Your task to perform on an android device: install app "Speedtest by Ookla" Image 0: 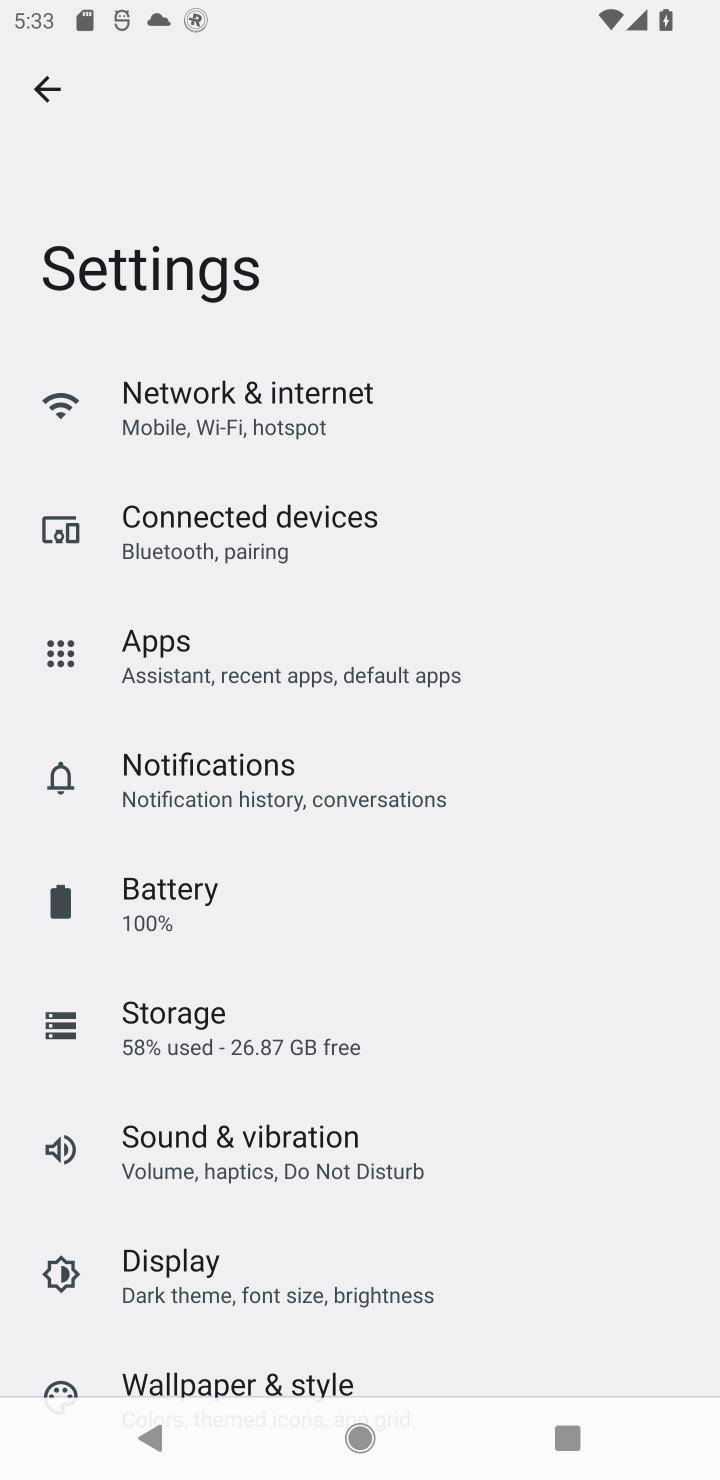
Step 0: press home button
Your task to perform on an android device: install app "Speedtest by Ookla" Image 1: 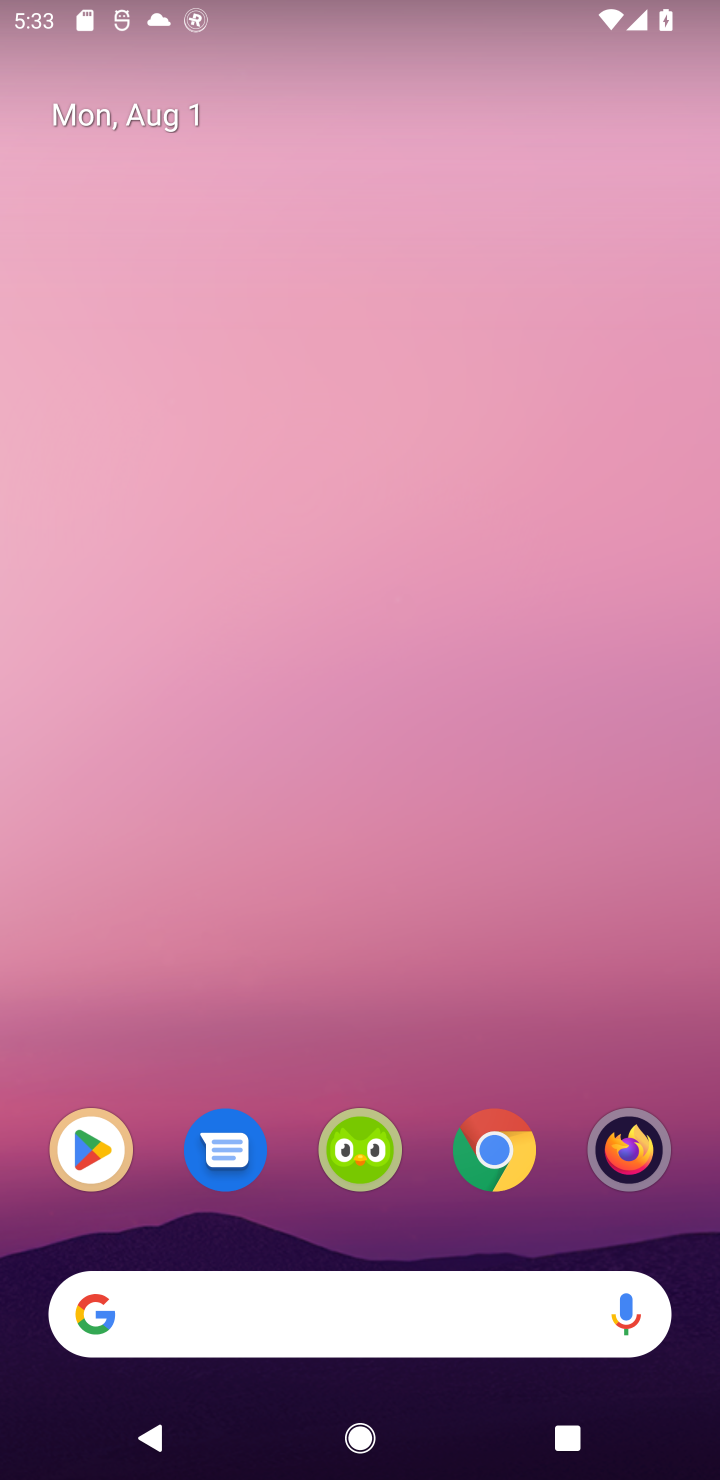
Step 1: click (439, 468)
Your task to perform on an android device: install app "Speedtest by Ookla" Image 2: 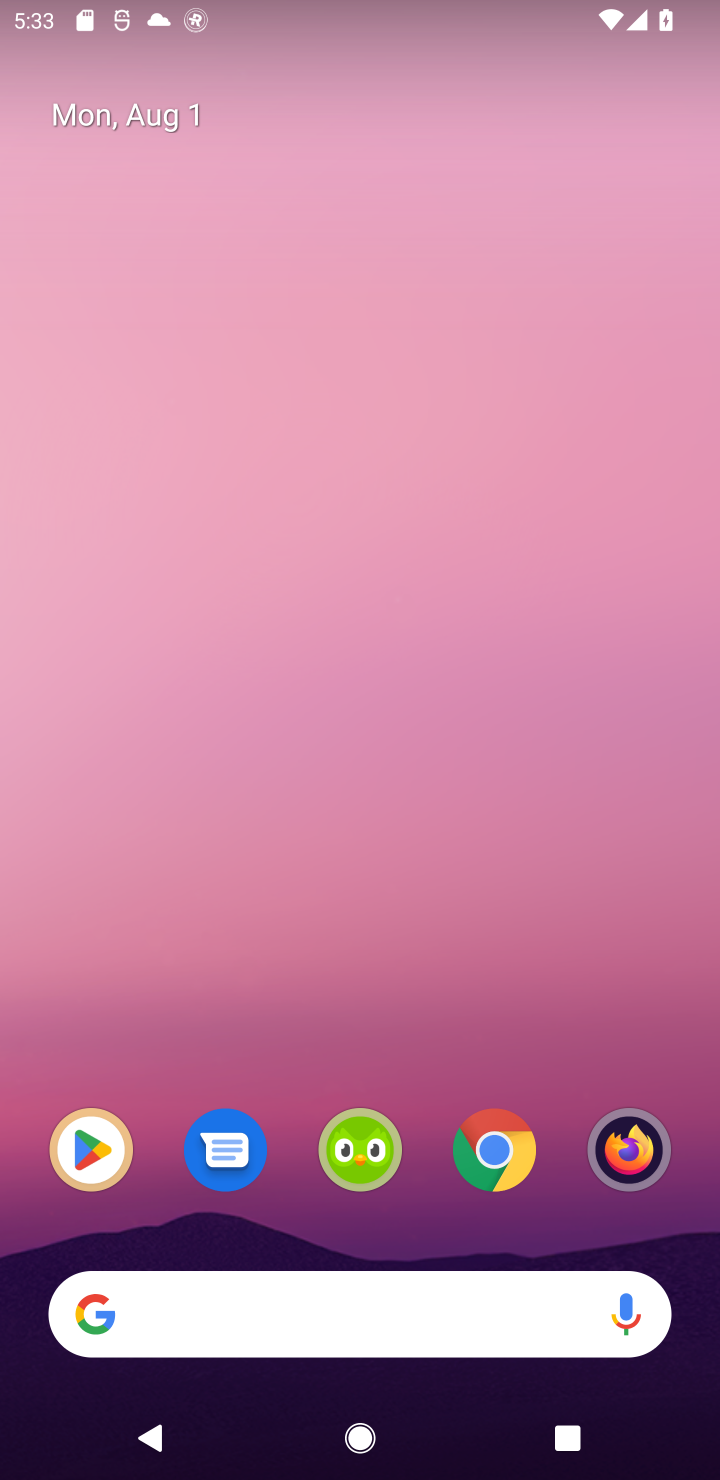
Step 2: click (103, 1171)
Your task to perform on an android device: install app "Speedtest by Ookla" Image 3: 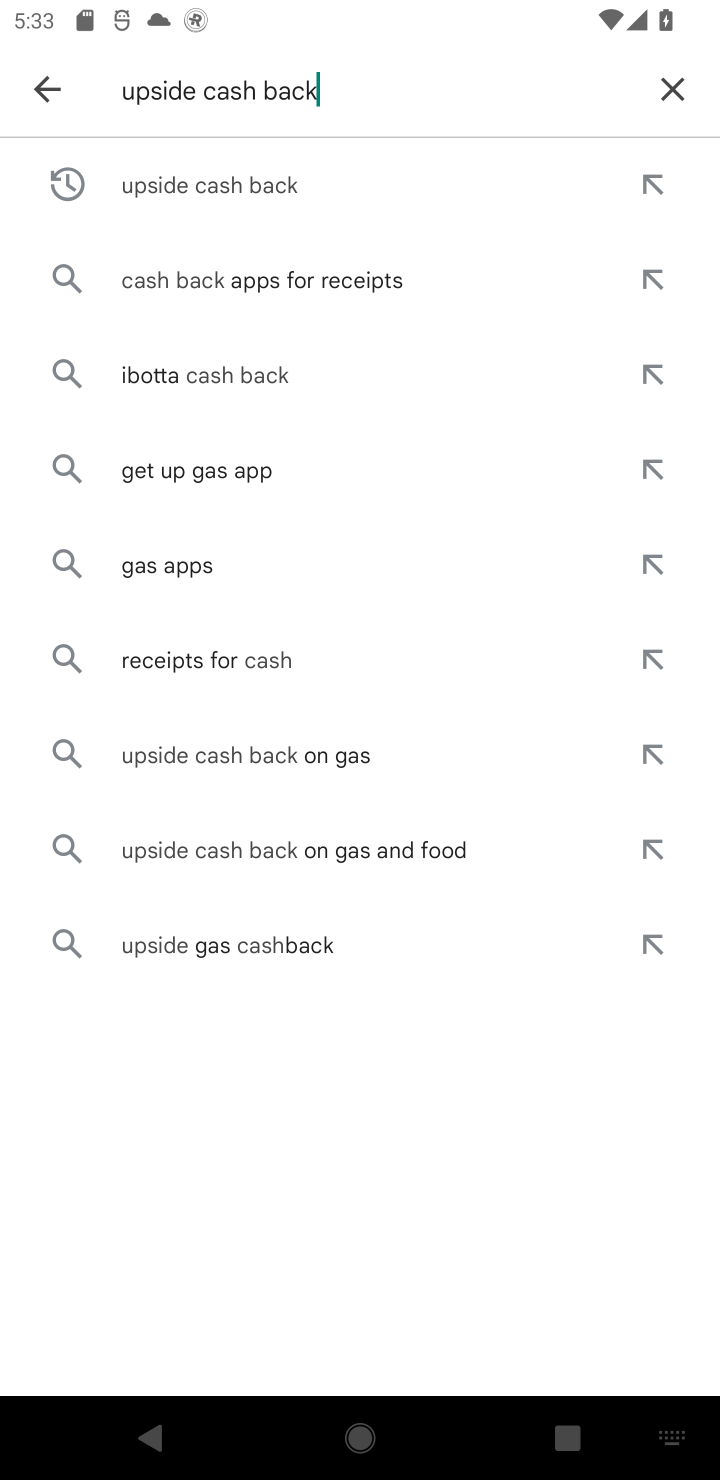
Step 3: click (675, 94)
Your task to perform on an android device: install app "Speedtest by Ookla" Image 4: 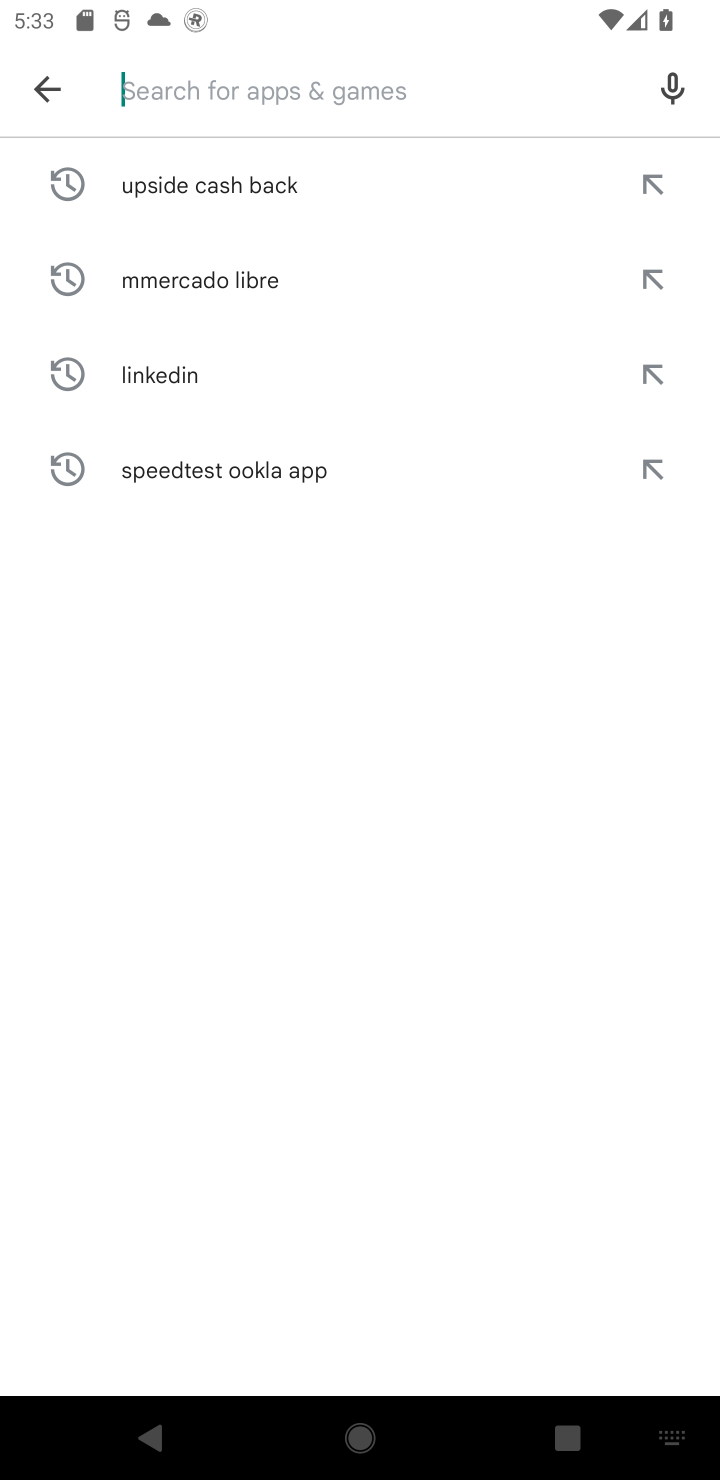
Step 4: type "speedtest"
Your task to perform on an android device: install app "Speedtest by Ookla" Image 5: 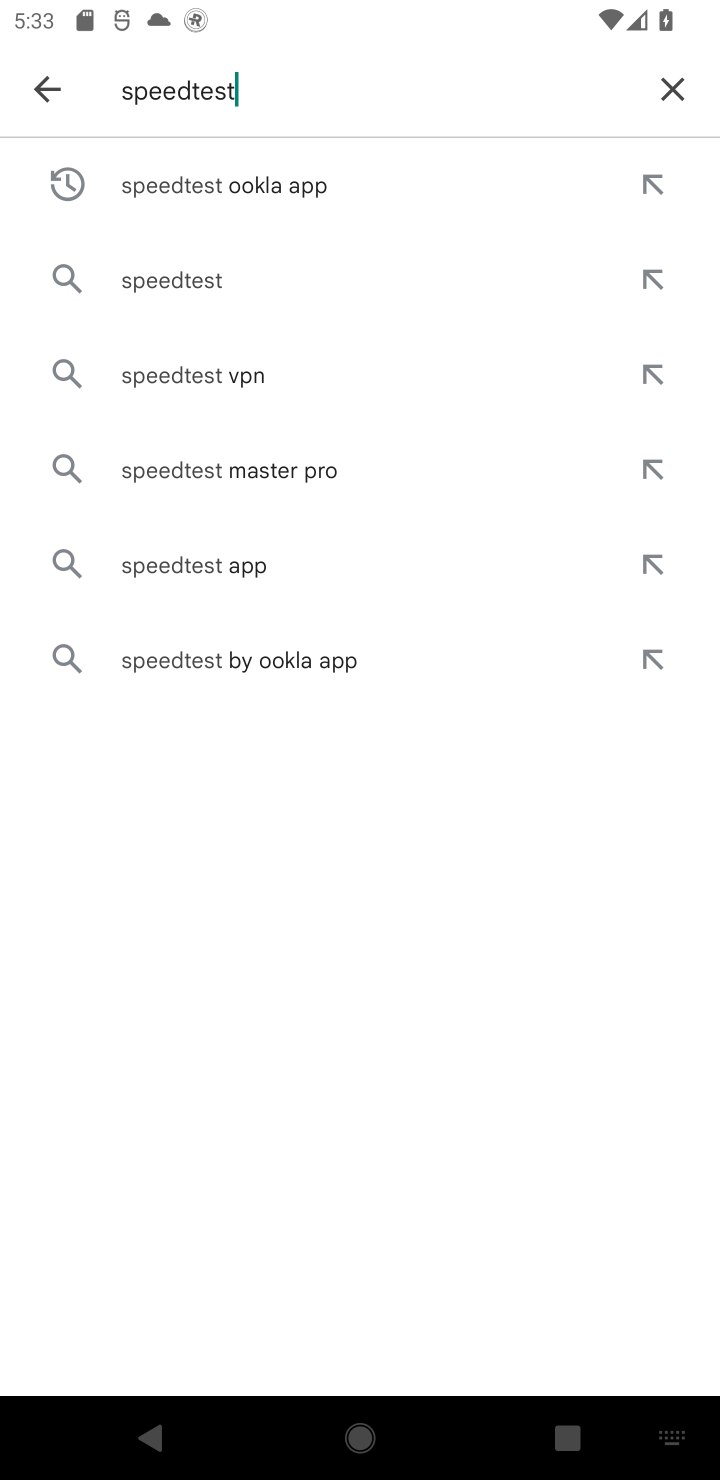
Step 5: click (251, 173)
Your task to perform on an android device: install app "Speedtest by Ookla" Image 6: 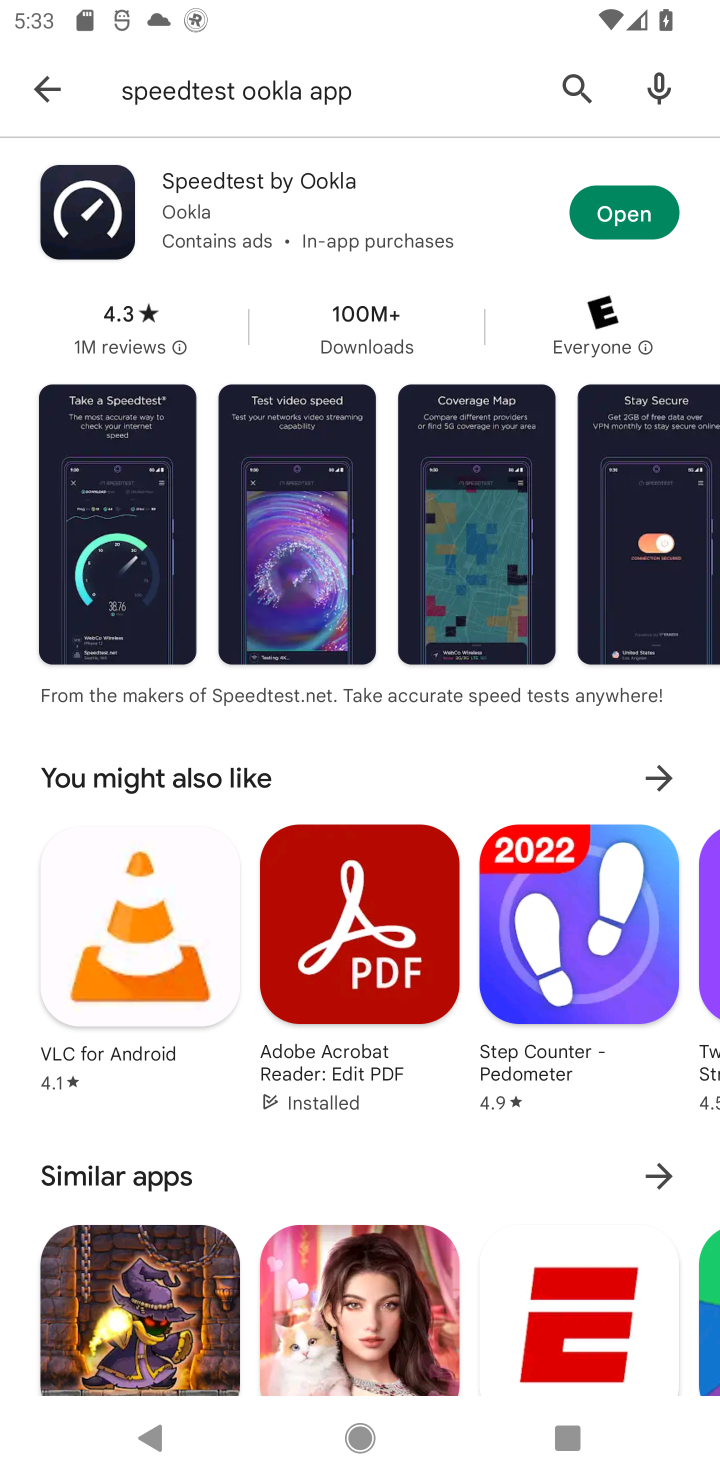
Step 6: click (598, 205)
Your task to perform on an android device: install app "Speedtest by Ookla" Image 7: 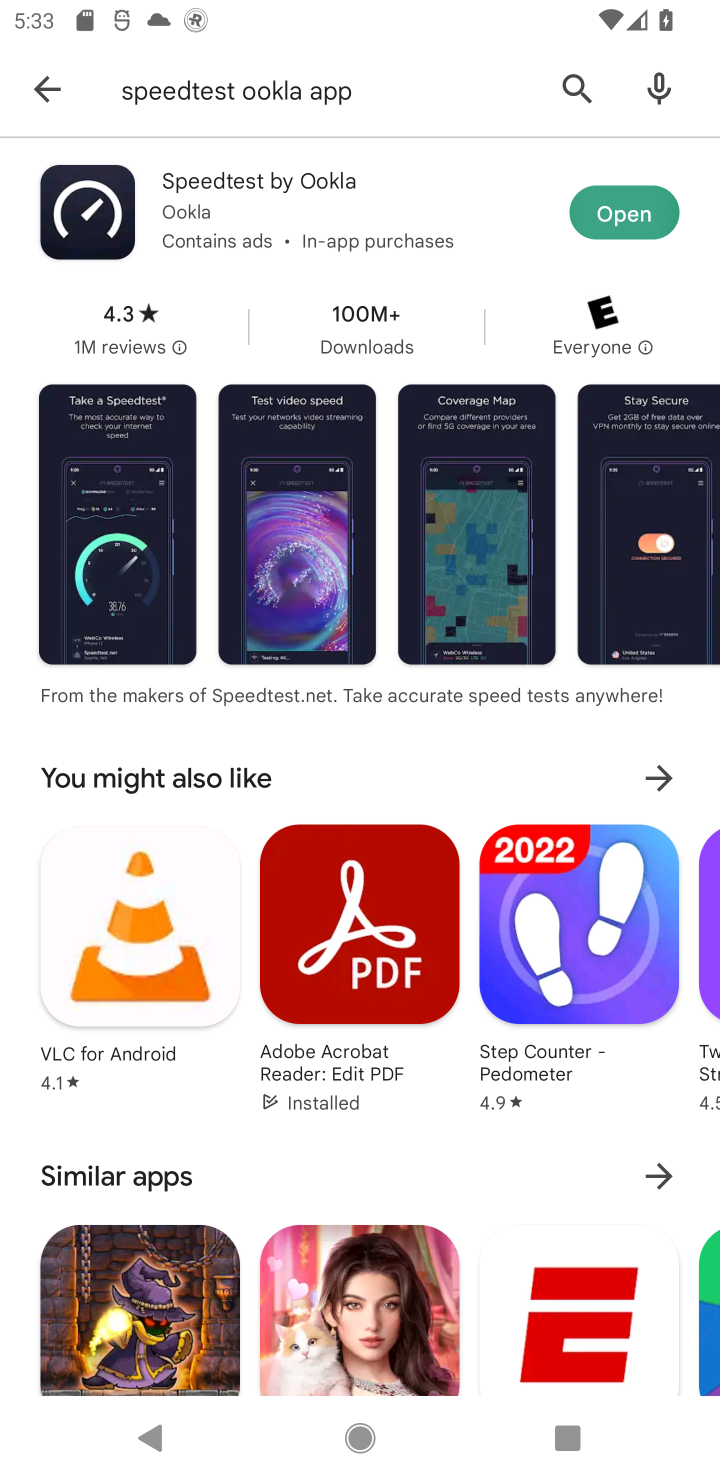
Step 7: task complete